Your task to perform on an android device: Open Chrome and go to the settings page Image 0: 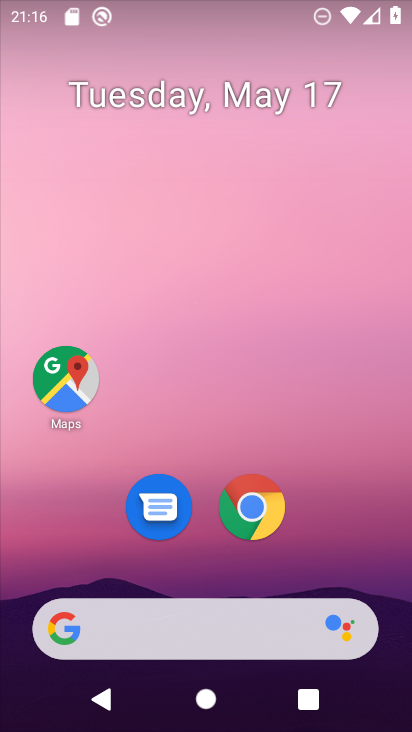
Step 0: click (266, 515)
Your task to perform on an android device: Open Chrome and go to the settings page Image 1: 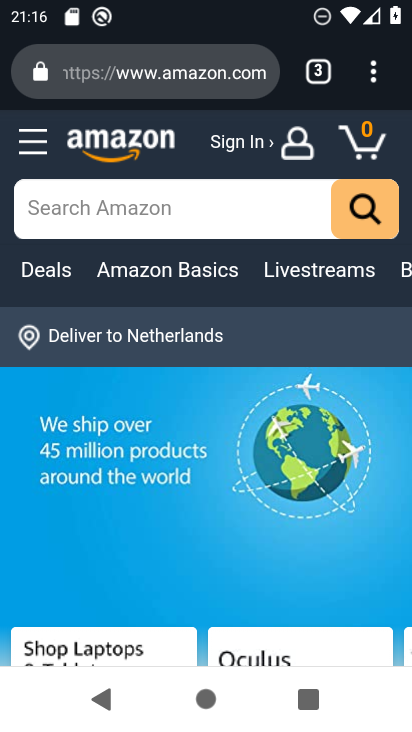
Step 1: click (375, 73)
Your task to perform on an android device: Open Chrome and go to the settings page Image 2: 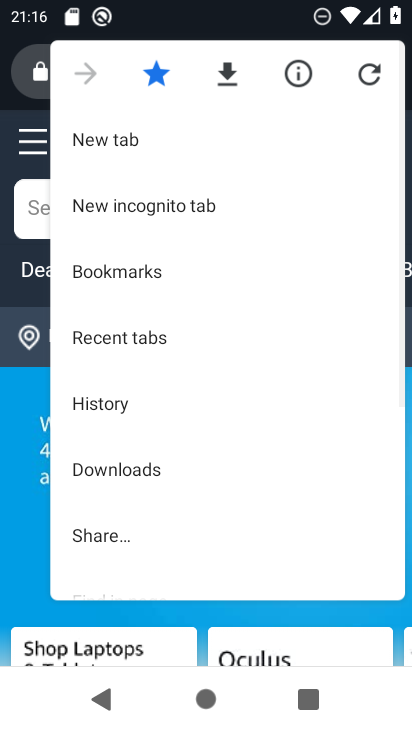
Step 2: drag from (178, 538) to (201, 161)
Your task to perform on an android device: Open Chrome and go to the settings page Image 3: 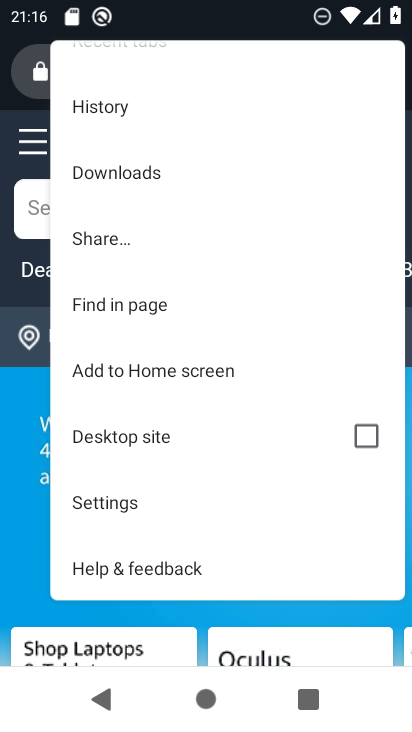
Step 3: click (104, 508)
Your task to perform on an android device: Open Chrome and go to the settings page Image 4: 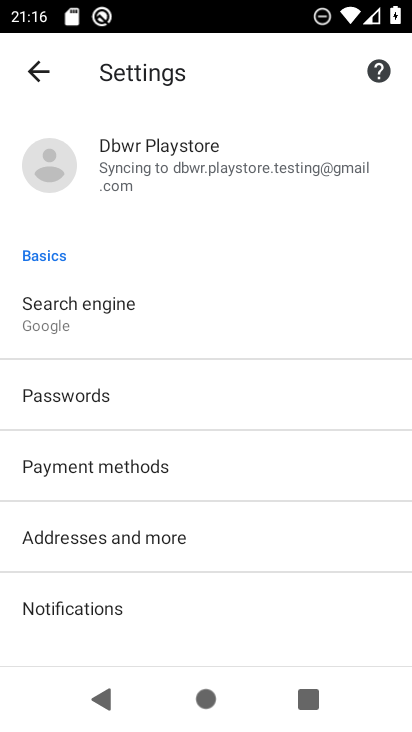
Step 4: task complete